Your task to perform on an android device: Open Chrome and go to settings Image 0: 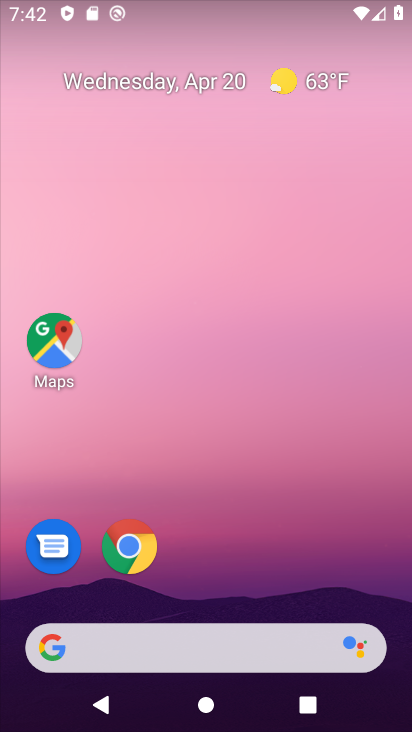
Step 0: click (129, 544)
Your task to perform on an android device: Open Chrome and go to settings Image 1: 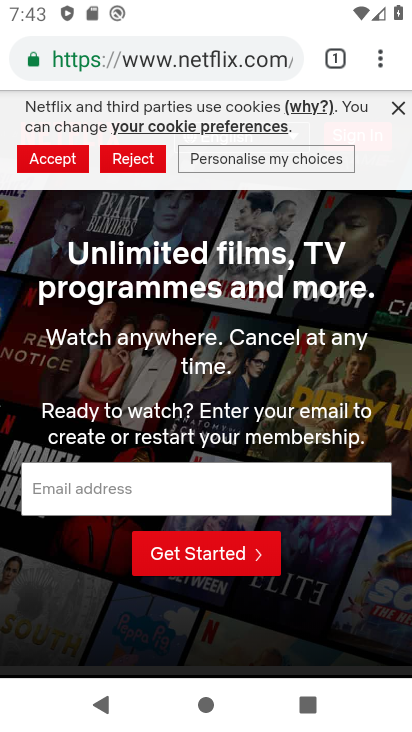
Step 1: click (382, 51)
Your task to perform on an android device: Open Chrome and go to settings Image 2: 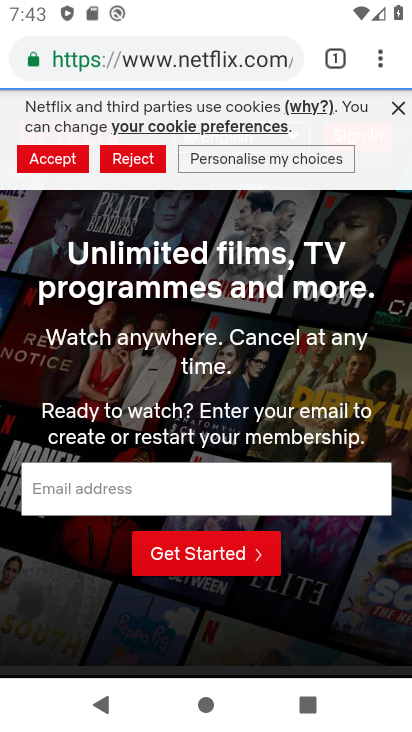
Step 2: click (382, 51)
Your task to perform on an android device: Open Chrome and go to settings Image 3: 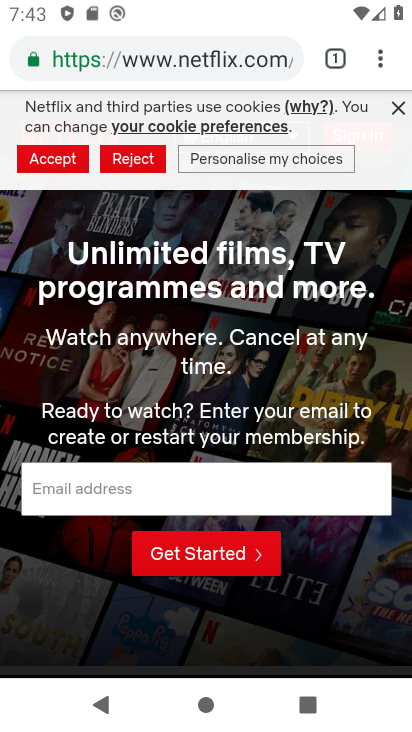
Step 3: click (382, 51)
Your task to perform on an android device: Open Chrome and go to settings Image 4: 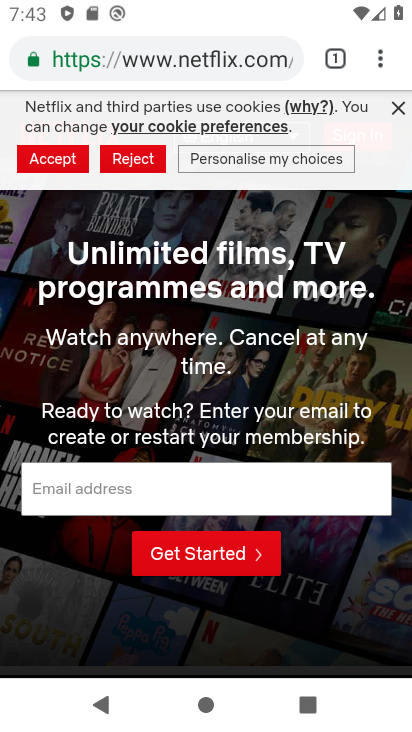
Step 4: click (382, 60)
Your task to perform on an android device: Open Chrome and go to settings Image 5: 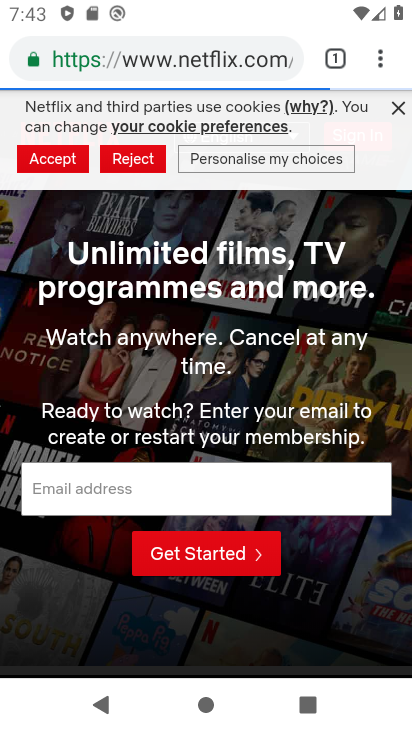
Step 5: click (382, 60)
Your task to perform on an android device: Open Chrome and go to settings Image 6: 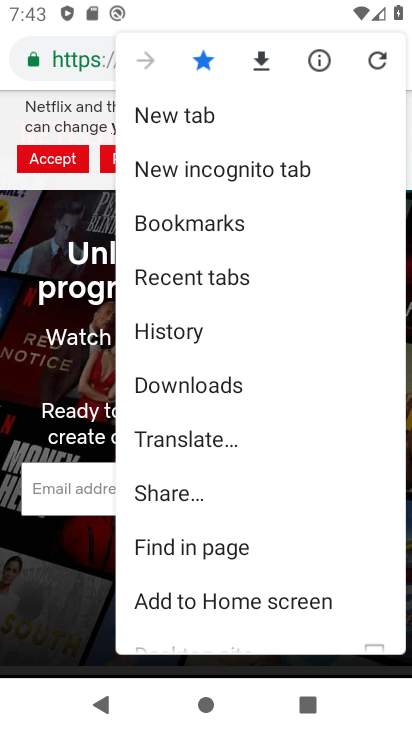
Step 6: task complete